Your task to perform on an android device: turn on bluetooth scan Image 0: 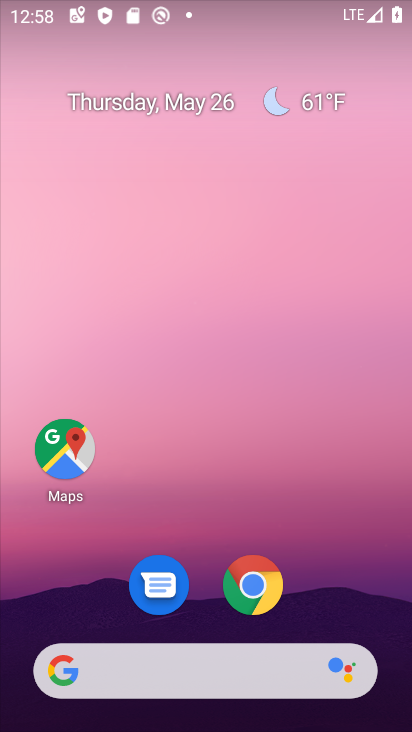
Step 0: click (294, 23)
Your task to perform on an android device: turn on bluetooth scan Image 1: 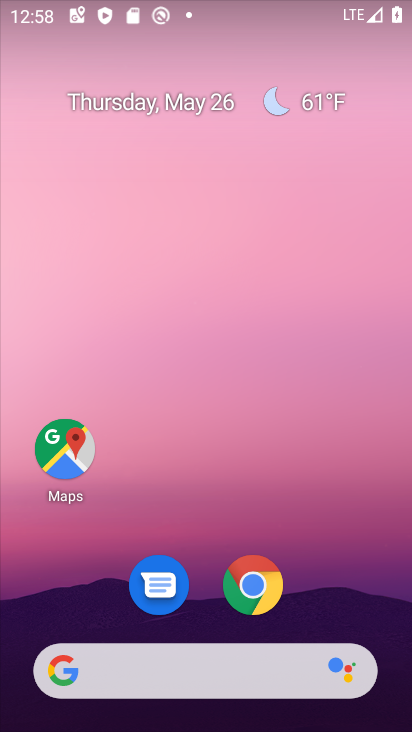
Step 1: drag from (189, 494) to (222, 23)
Your task to perform on an android device: turn on bluetooth scan Image 2: 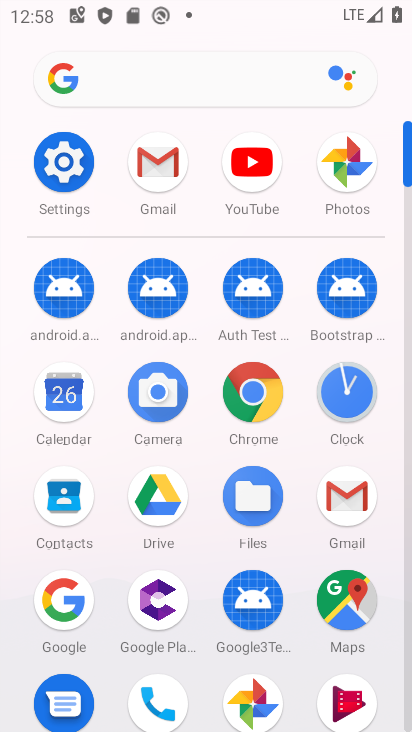
Step 2: click (74, 163)
Your task to perform on an android device: turn on bluetooth scan Image 3: 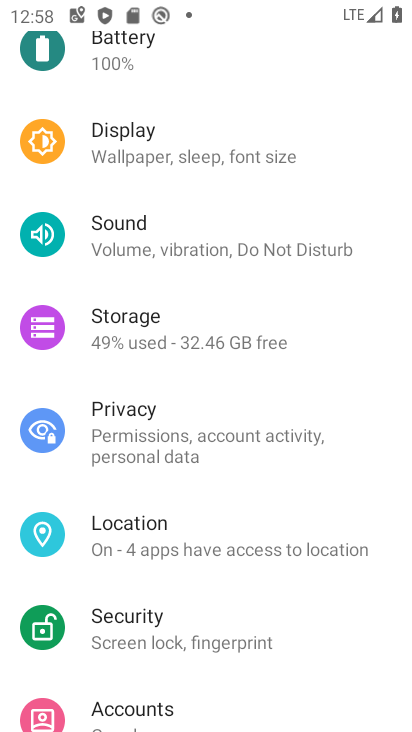
Step 3: click (210, 531)
Your task to perform on an android device: turn on bluetooth scan Image 4: 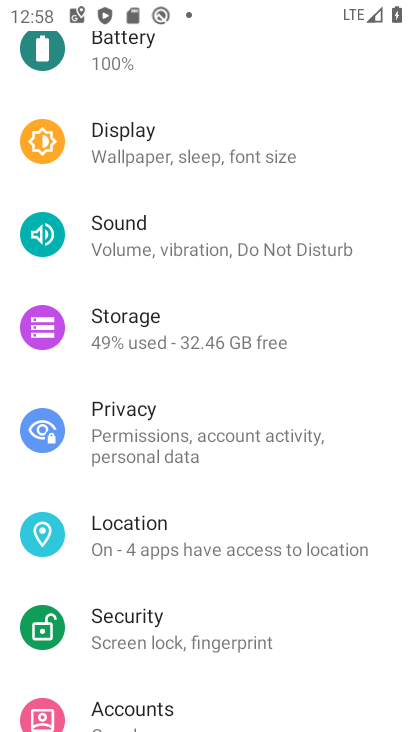
Step 4: click (213, 536)
Your task to perform on an android device: turn on bluetooth scan Image 5: 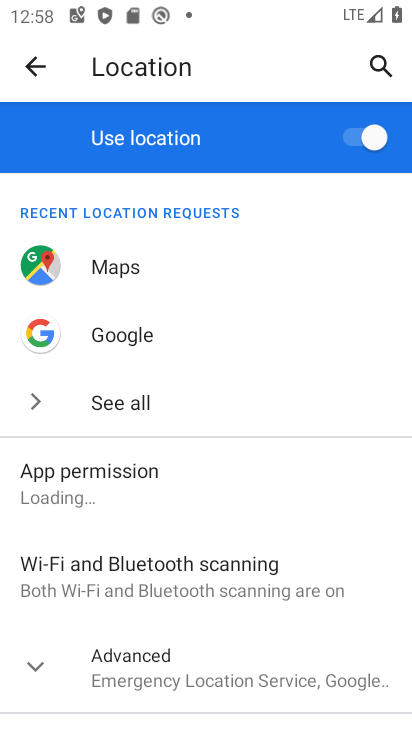
Step 5: click (230, 562)
Your task to perform on an android device: turn on bluetooth scan Image 6: 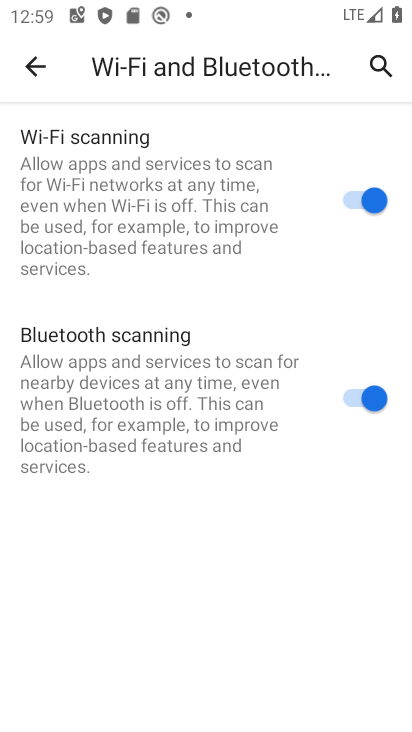
Step 6: task complete